Your task to perform on an android device: Look up the best selling books on Goodreads. Image 0: 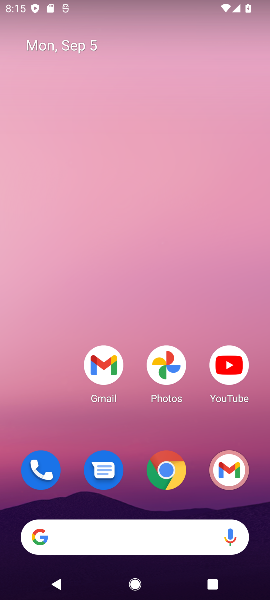
Step 0: click (95, 532)
Your task to perform on an android device: Look up the best selling books on Goodreads. Image 1: 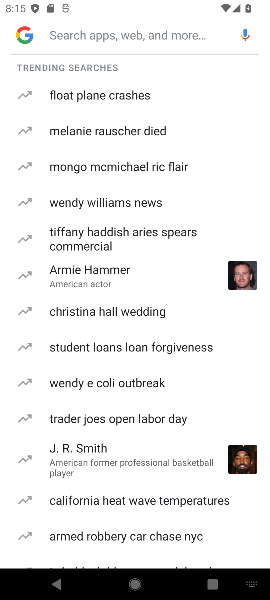
Step 1: type "goodreads"
Your task to perform on an android device: Look up the best selling books on Goodreads. Image 2: 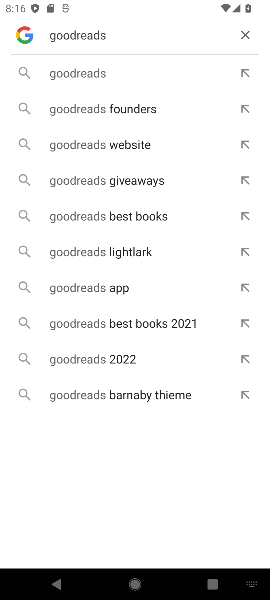
Step 2: click (92, 74)
Your task to perform on an android device: Look up the best selling books on Goodreads. Image 3: 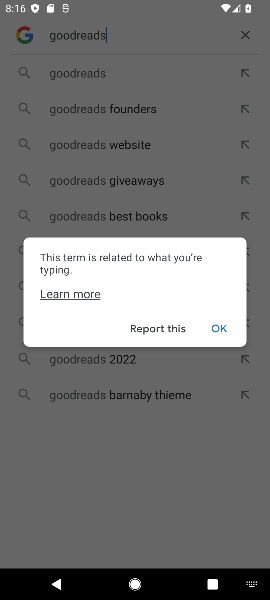
Step 3: click (217, 329)
Your task to perform on an android device: Look up the best selling books on Goodreads. Image 4: 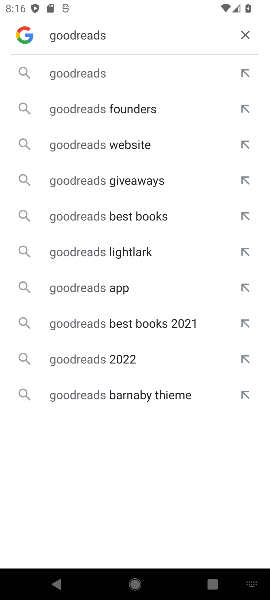
Step 4: click (84, 71)
Your task to perform on an android device: Look up the best selling books on Goodreads. Image 5: 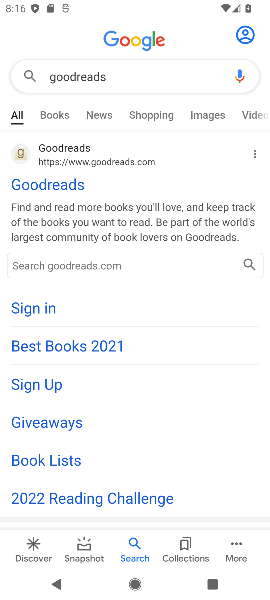
Step 5: click (40, 181)
Your task to perform on an android device: Look up the best selling books on Goodreads. Image 6: 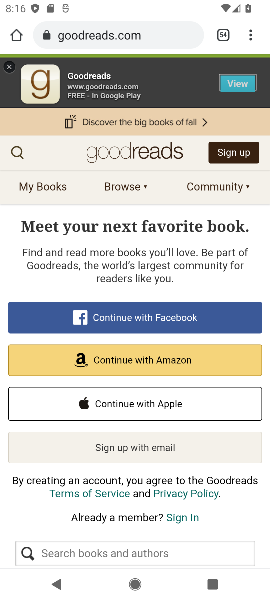
Step 6: click (16, 146)
Your task to perform on an android device: Look up the best selling books on Goodreads. Image 7: 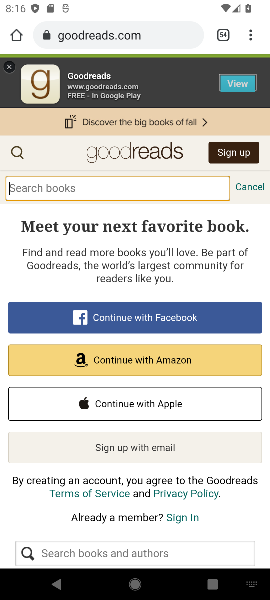
Step 7: click (58, 185)
Your task to perform on an android device: Look up the best selling books on Goodreads. Image 8: 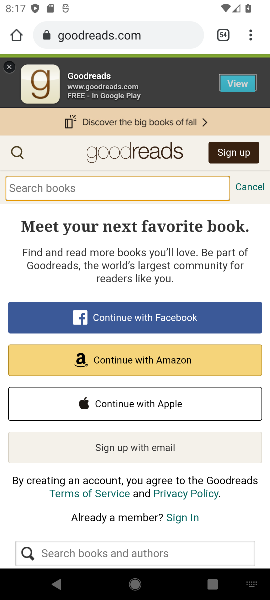
Step 8: type "best selling books"
Your task to perform on an android device: Look up the best selling books on Goodreads. Image 9: 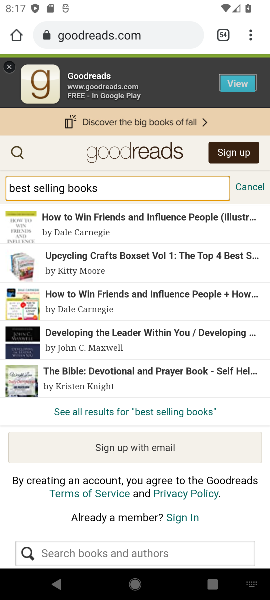
Step 9: click (141, 410)
Your task to perform on an android device: Look up the best selling books on Goodreads. Image 10: 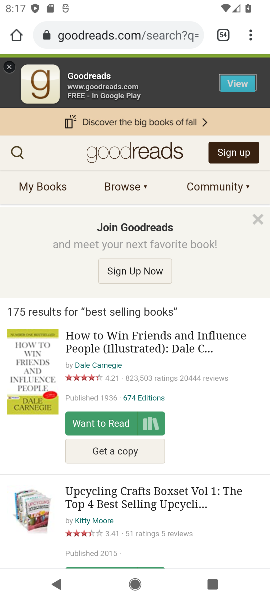
Step 10: task complete